Your task to perform on an android device: manage bookmarks in the chrome app Image 0: 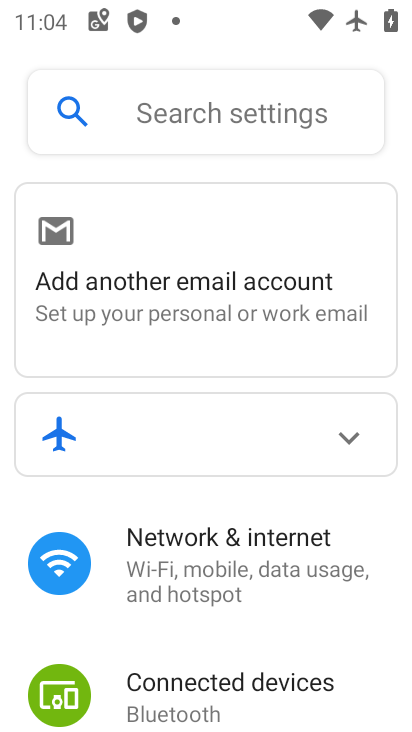
Step 0: press home button
Your task to perform on an android device: manage bookmarks in the chrome app Image 1: 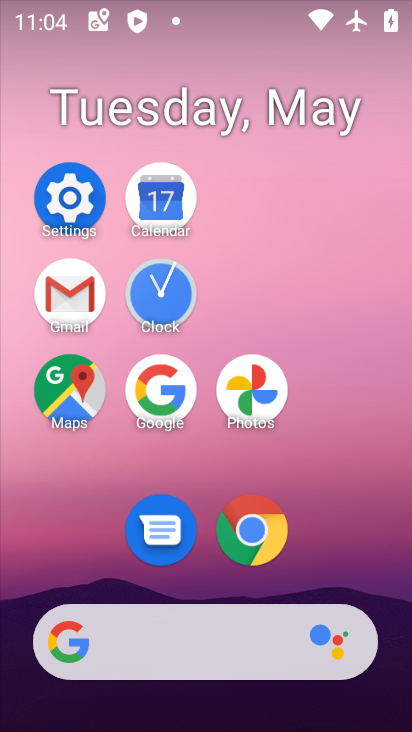
Step 1: click (266, 541)
Your task to perform on an android device: manage bookmarks in the chrome app Image 2: 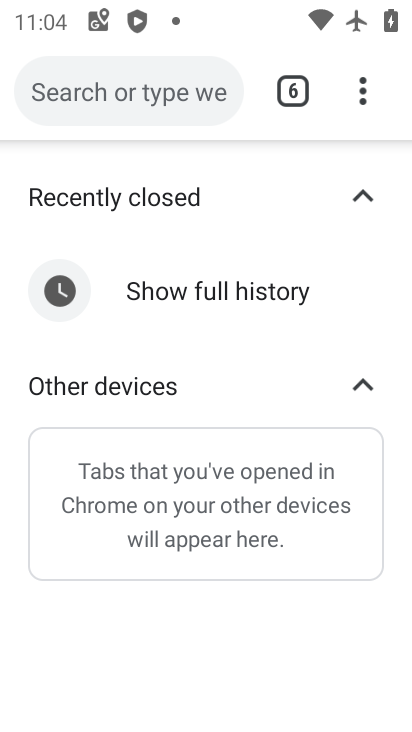
Step 2: click (356, 82)
Your task to perform on an android device: manage bookmarks in the chrome app Image 3: 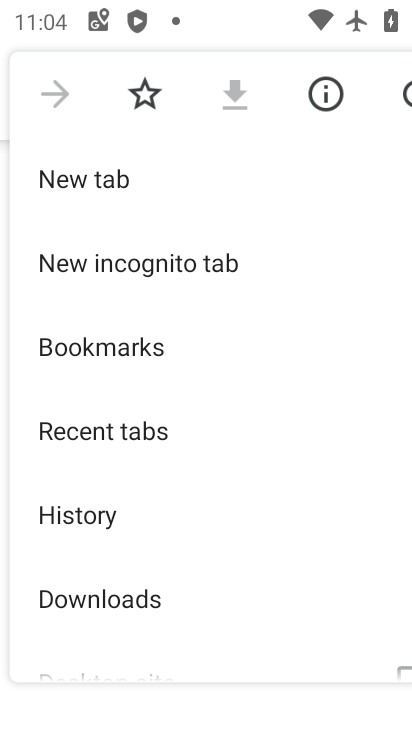
Step 3: click (218, 336)
Your task to perform on an android device: manage bookmarks in the chrome app Image 4: 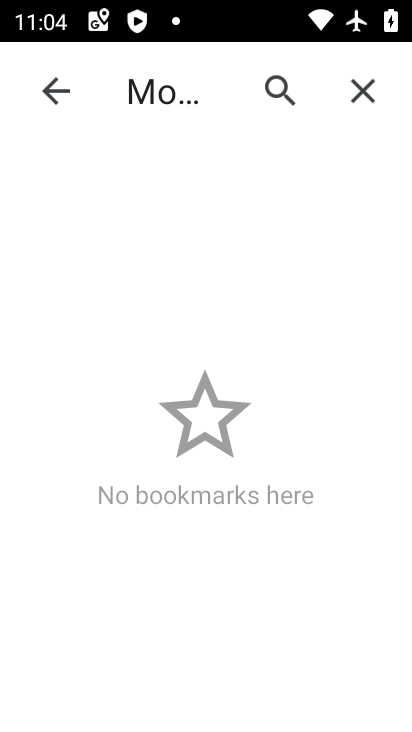
Step 4: task complete